Your task to perform on an android device: add a contact Image 0: 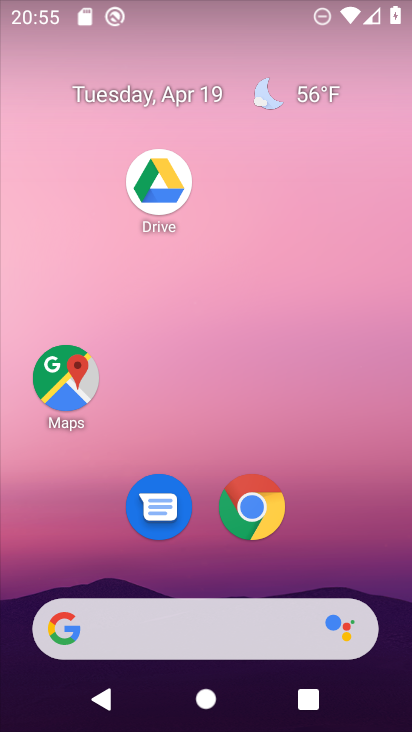
Step 0: drag from (346, 517) to (319, 132)
Your task to perform on an android device: add a contact Image 1: 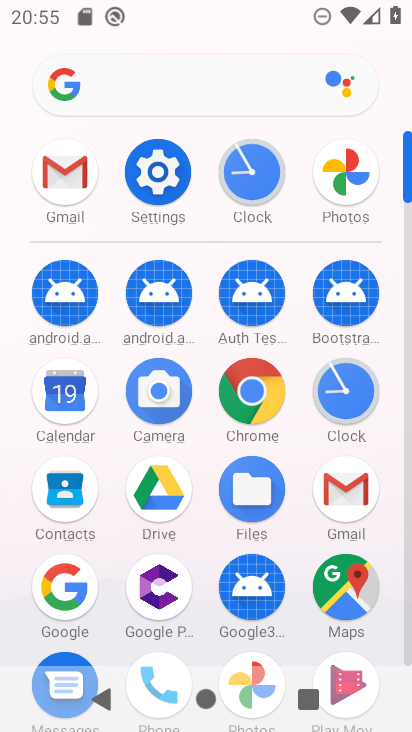
Step 1: click (70, 493)
Your task to perform on an android device: add a contact Image 2: 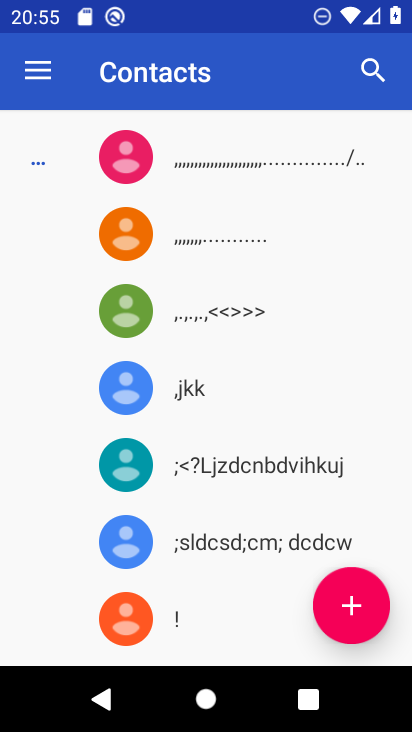
Step 2: click (352, 594)
Your task to perform on an android device: add a contact Image 3: 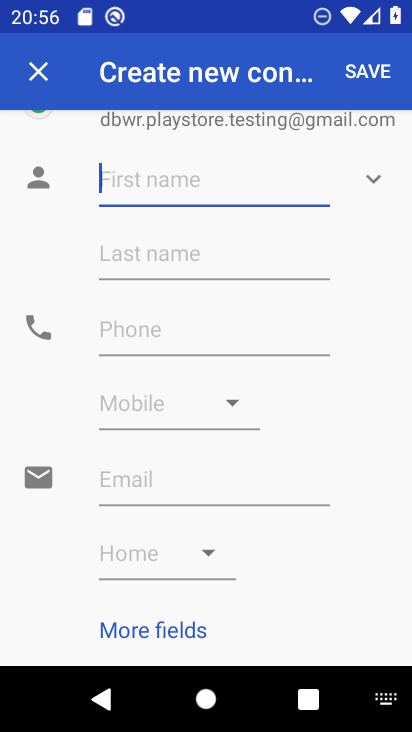
Step 3: type "Durgeshanand"
Your task to perform on an android device: add a contact Image 4: 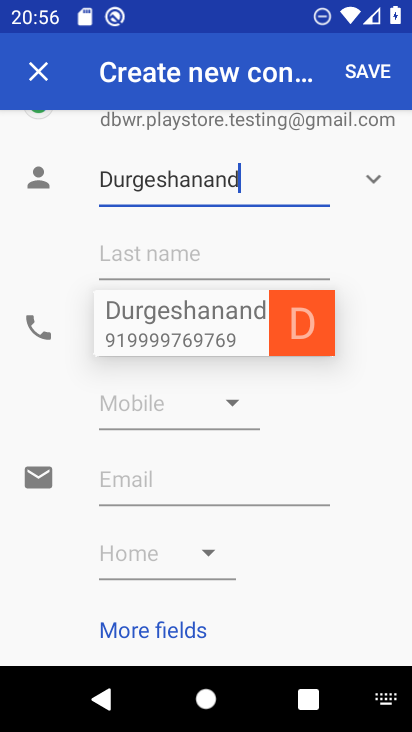
Step 4: type " Dwivedi"
Your task to perform on an android device: add a contact Image 5: 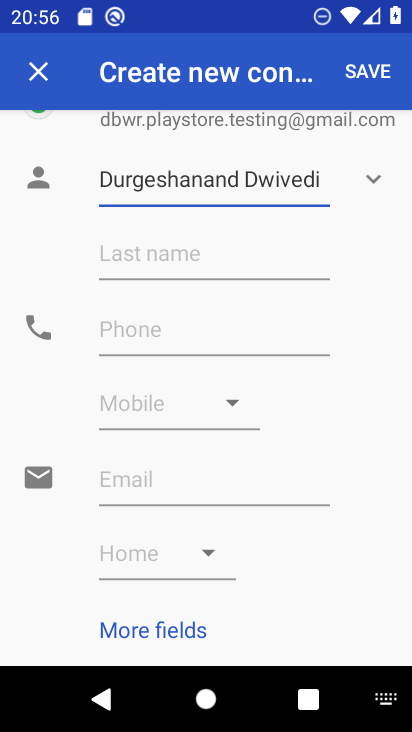
Step 5: click (231, 336)
Your task to perform on an android device: add a contact Image 6: 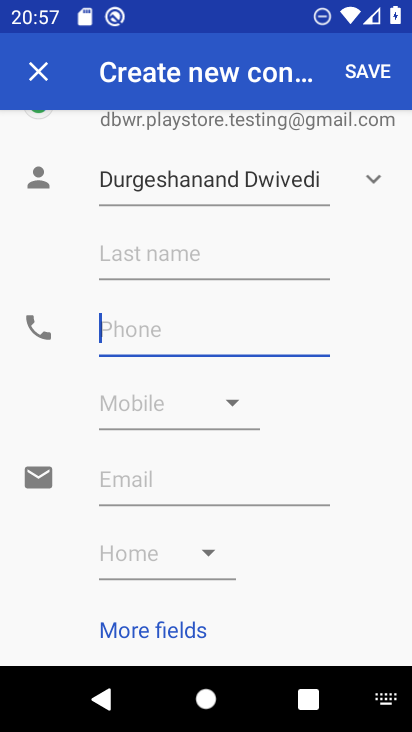
Step 6: type "919999757757"
Your task to perform on an android device: add a contact Image 7: 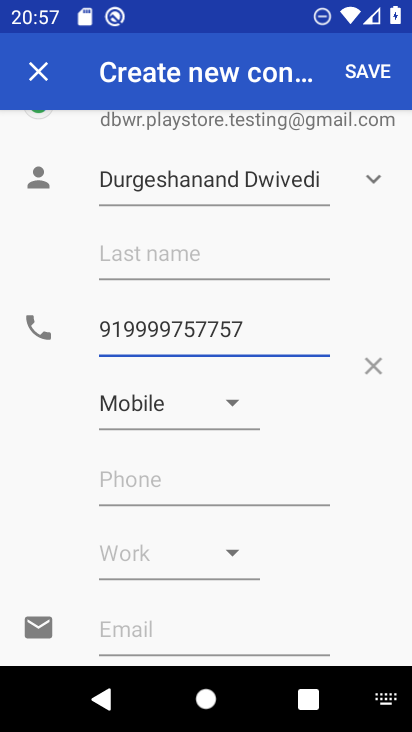
Step 7: click (372, 71)
Your task to perform on an android device: add a contact Image 8: 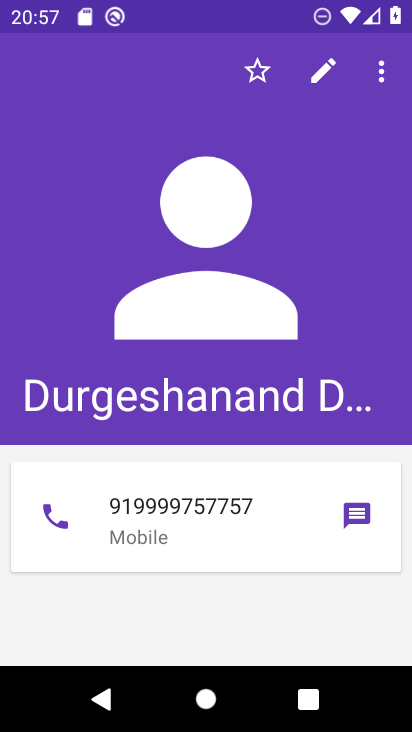
Step 8: task complete